Your task to perform on an android device: uninstall "Mercado Libre" Image 0: 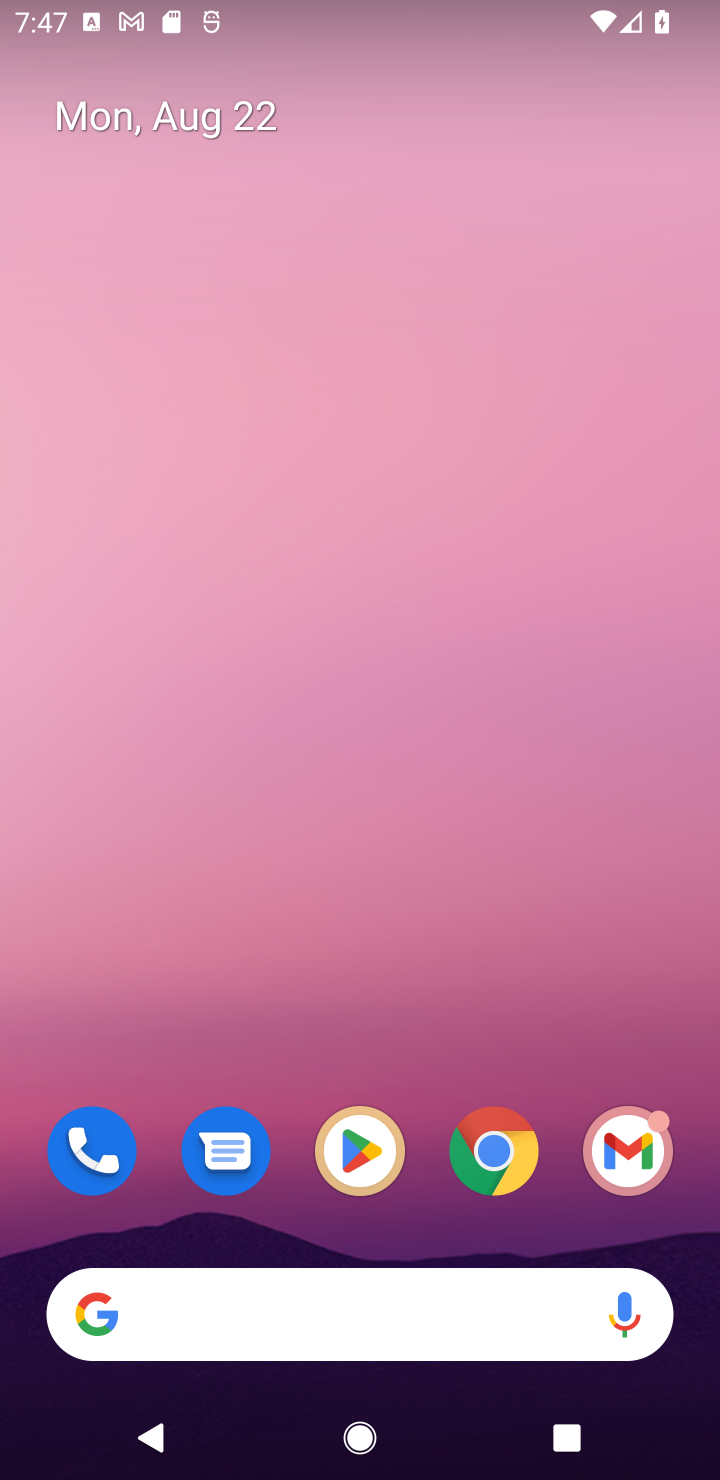
Step 0: press home button
Your task to perform on an android device: uninstall "Mercado Libre" Image 1: 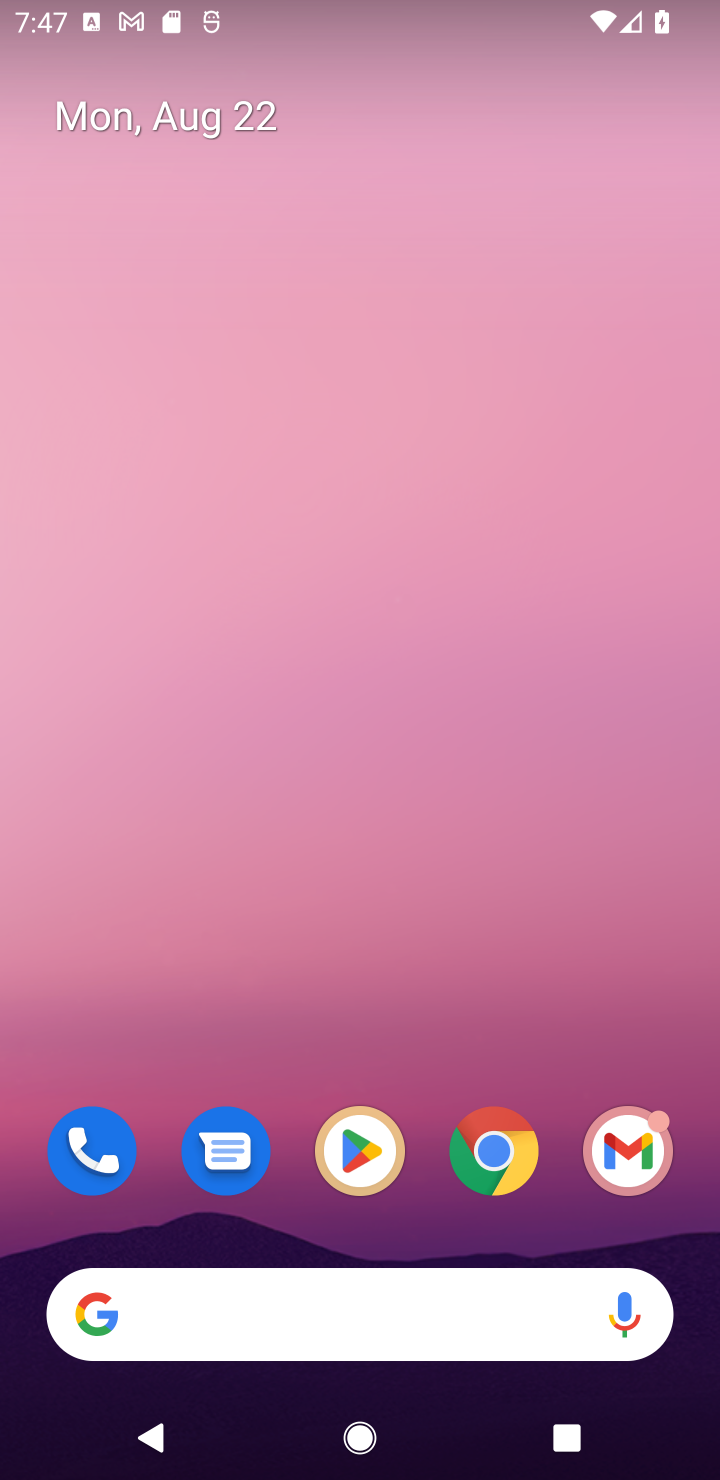
Step 1: click (356, 1149)
Your task to perform on an android device: uninstall "Mercado Libre" Image 2: 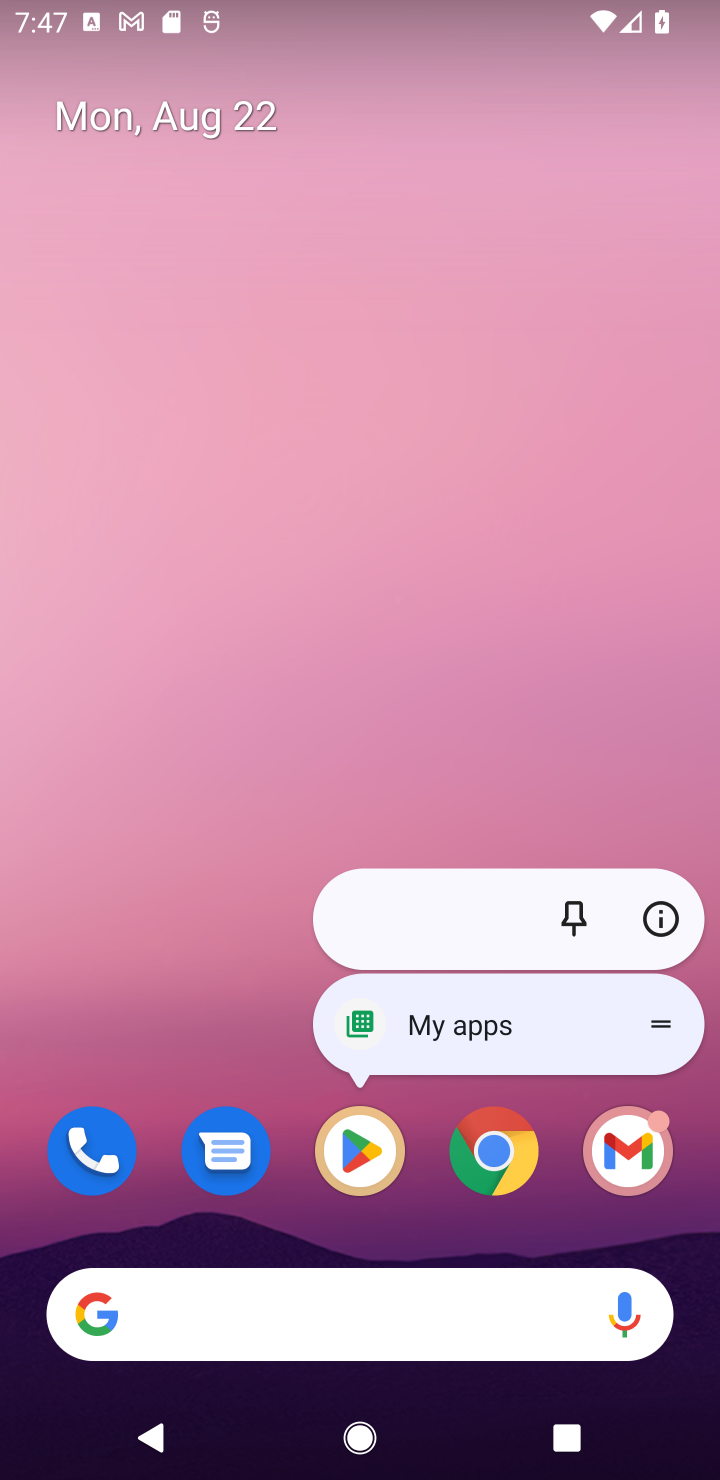
Step 2: click (356, 1153)
Your task to perform on an android device: uninstall "Mercado Libre" Image 3: 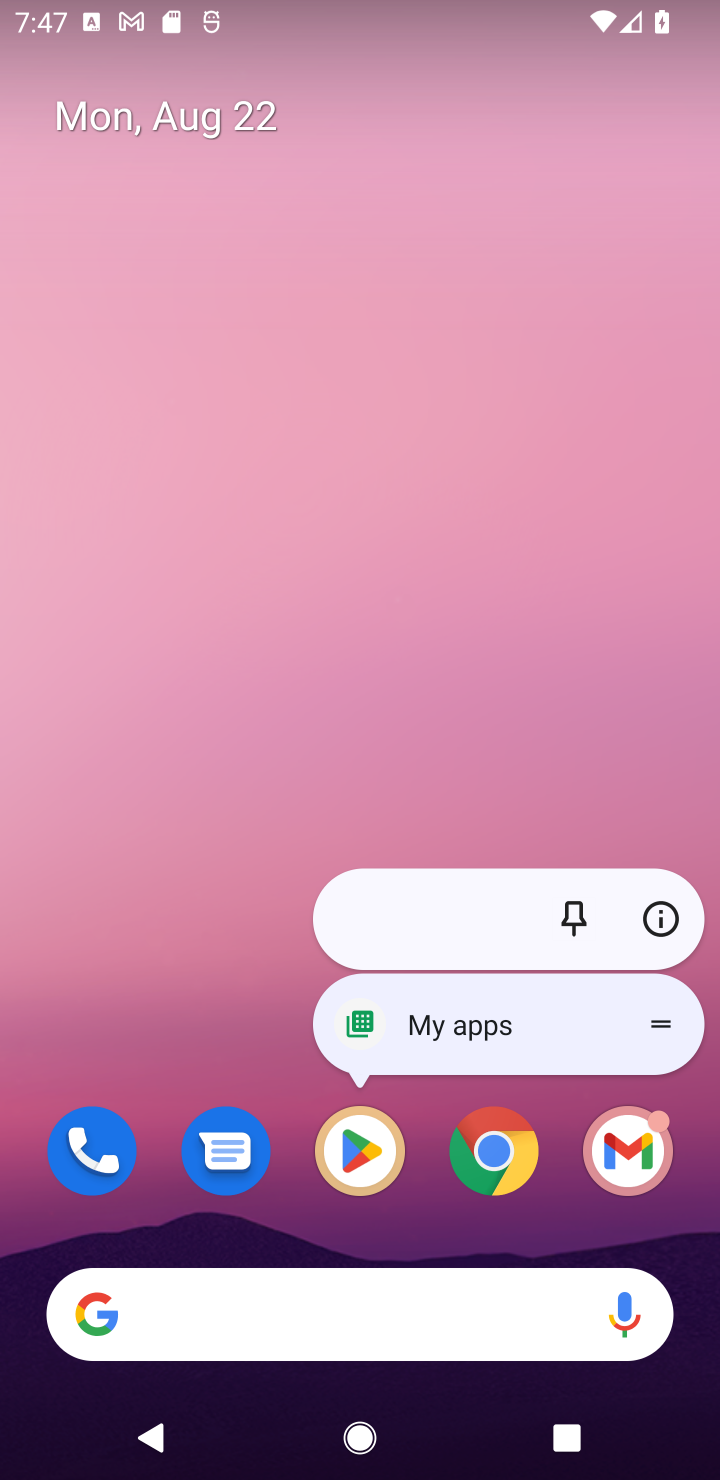
Step 3: click (356, 1153)
Your task to perform on an android device: uninstall "Mercado Libre" Image 4: 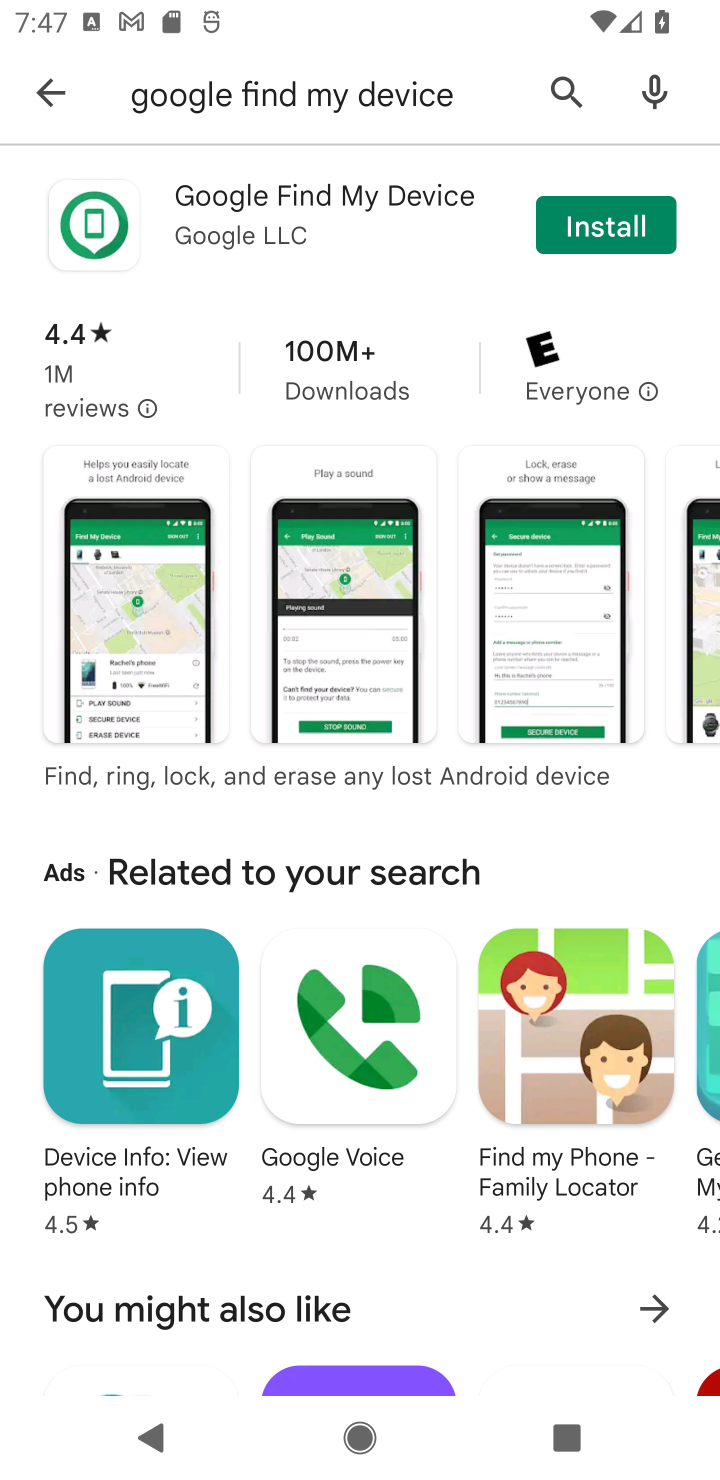
Step 4: click (562, 69)
Your task to perform on an android device: uninstall "Mercado Libre" Image 5: 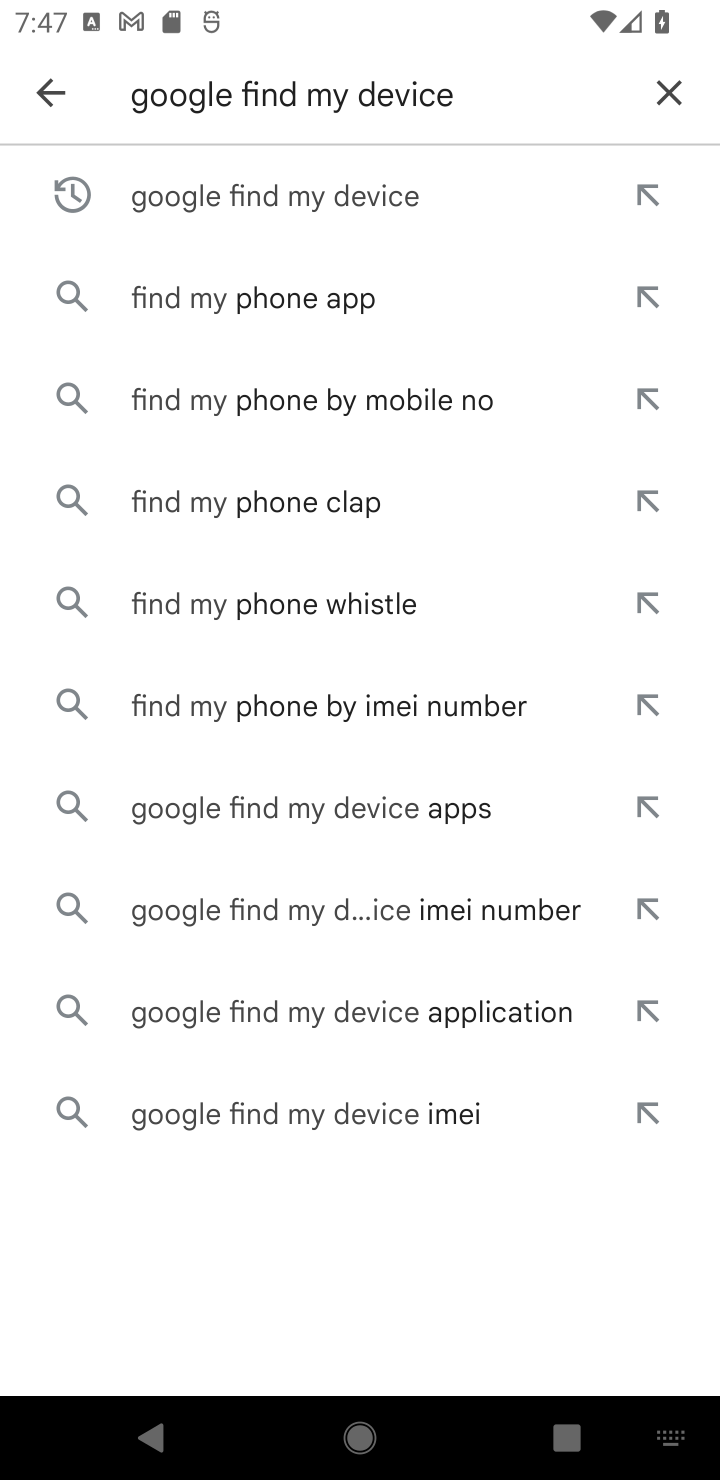
Step 5: click (667, 91)
Your task to perform on an android device: uninstall "Mercado Libre" Image 6: 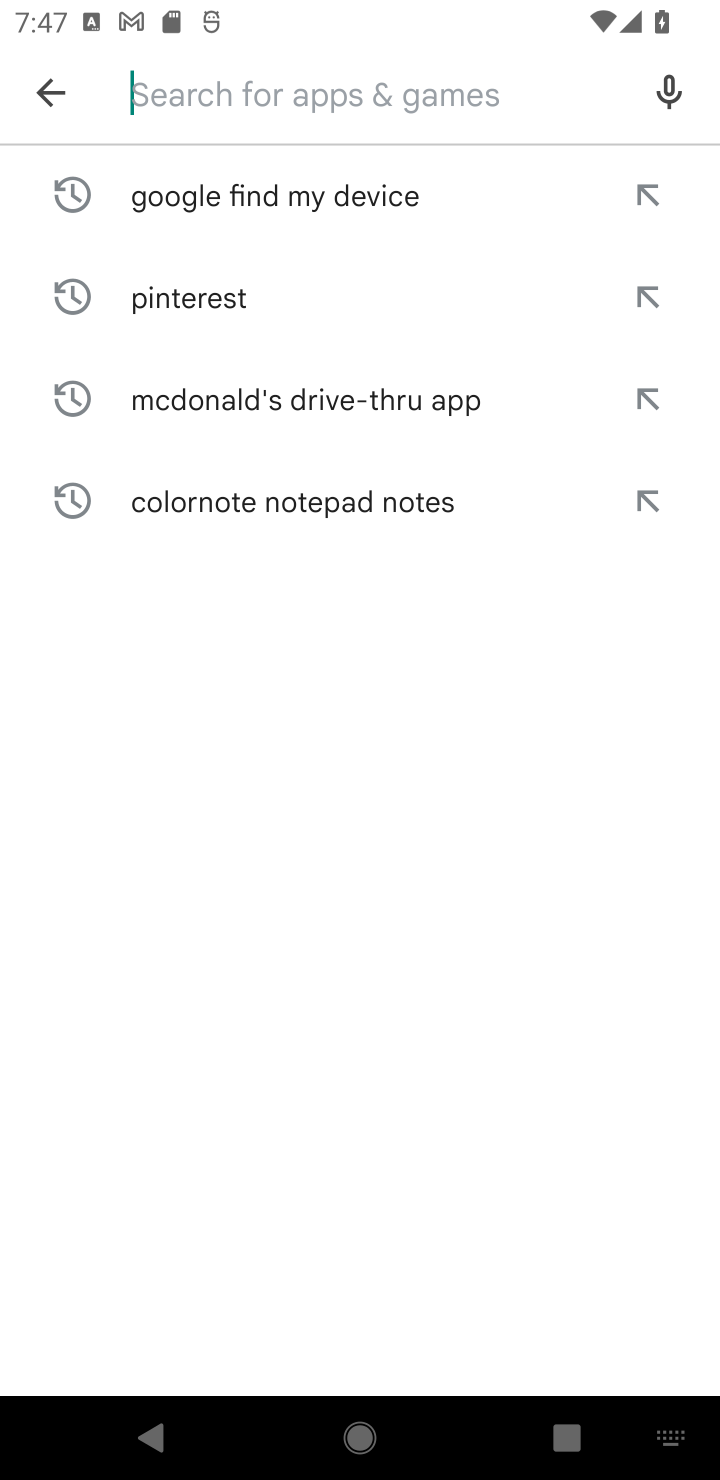
Step 6: type "Mercado Libre"
Your task to perform on an android device: uninstall "Mercado Libre" Image 7: 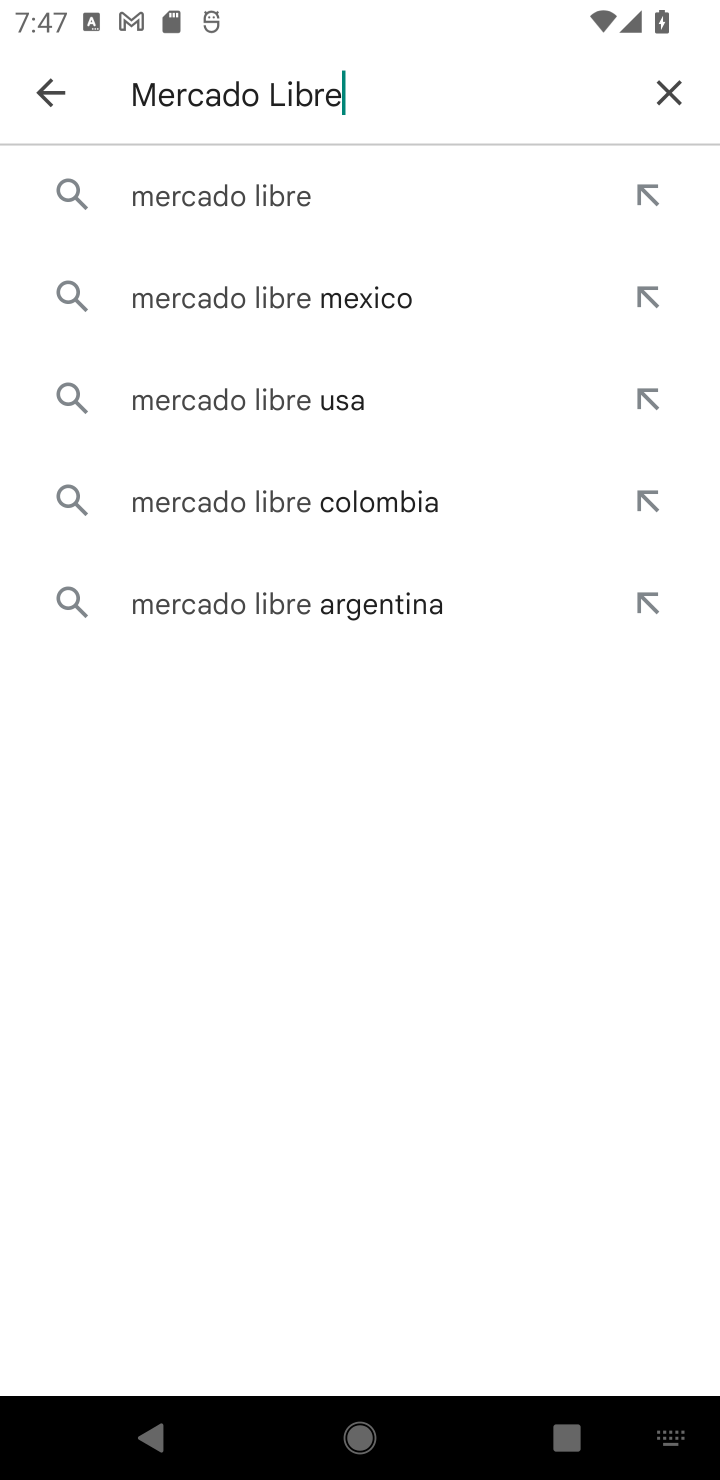
Step 7: click (227, 204)
Your task to perform on an android device: uninstall "Mercado Libre" Image 8: 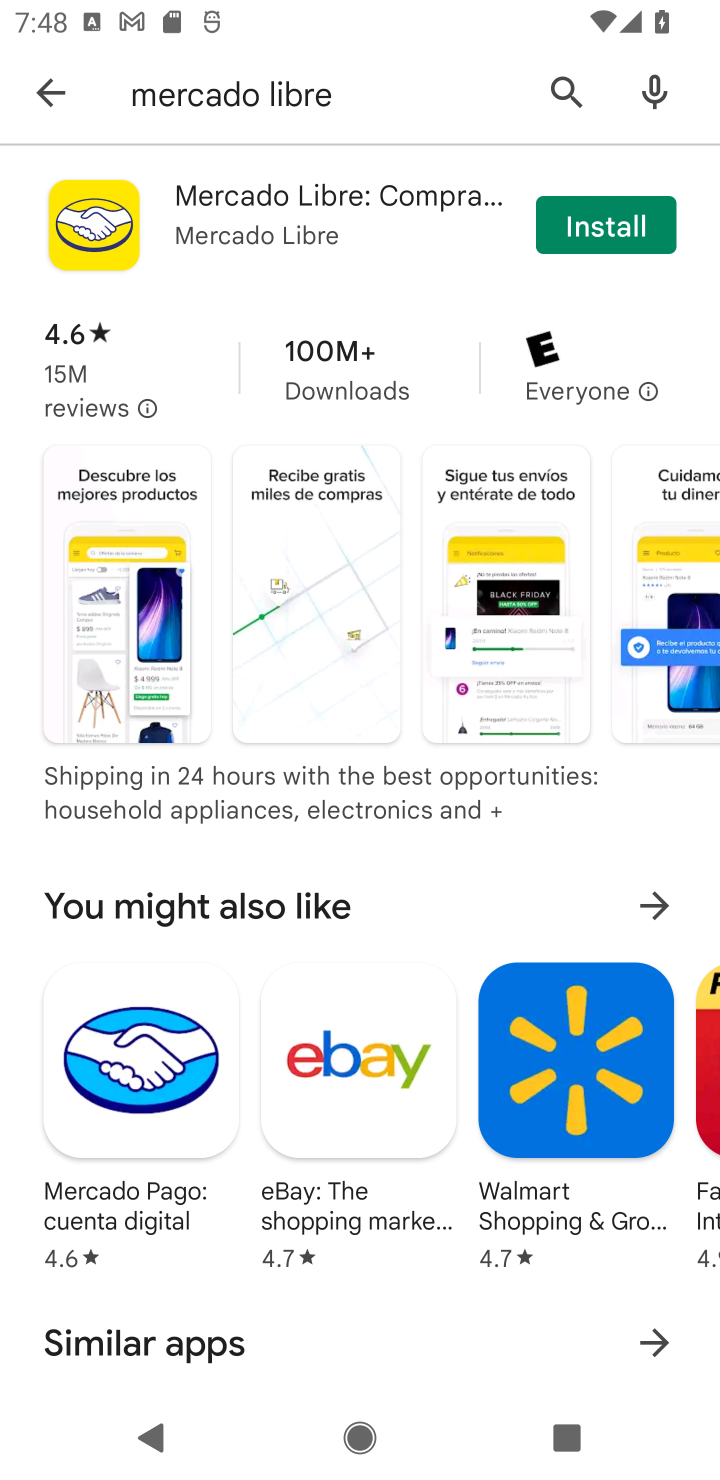
Step 8: task complete